Your task to perform on an android device: turn off improve location accuracy Image 0: 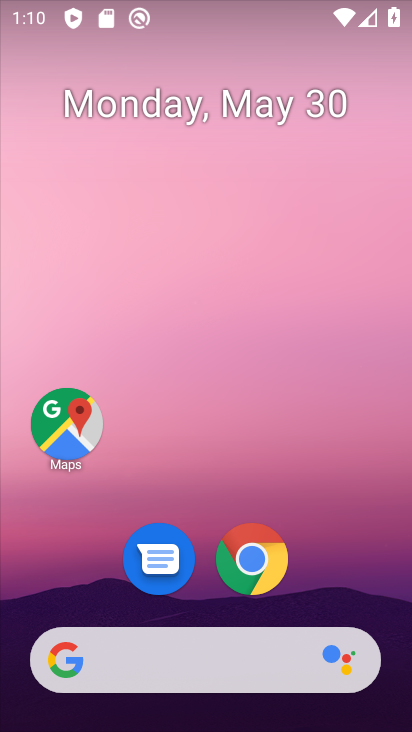
Step 0: drag from (144, 724) to (153, 42)
Your task to perform on an android device: turn off improve location accuracy Image 1: 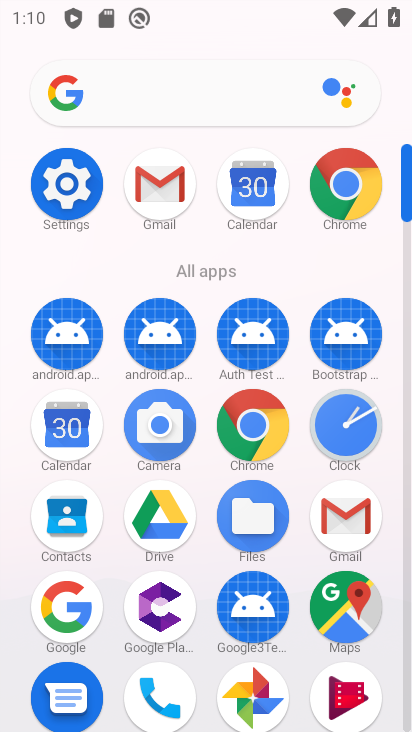
Step 1: click (46, 190)
Your task to perform on an android device: turn off improve location accuracy Image 2: 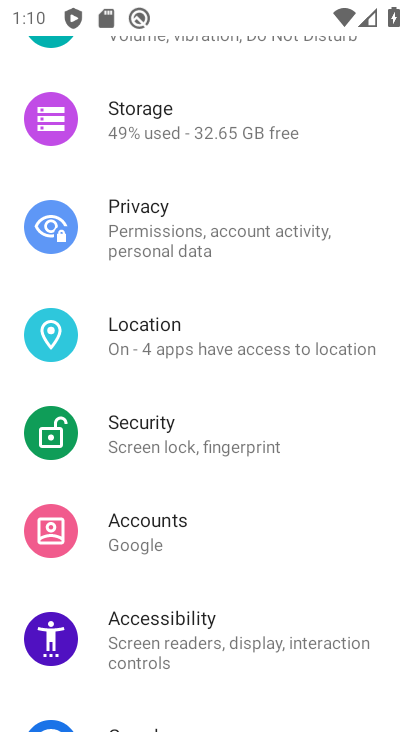
Step 2: click (195, 339)
Your task to perform on an android device: turn off improve location accuracy Image 3: 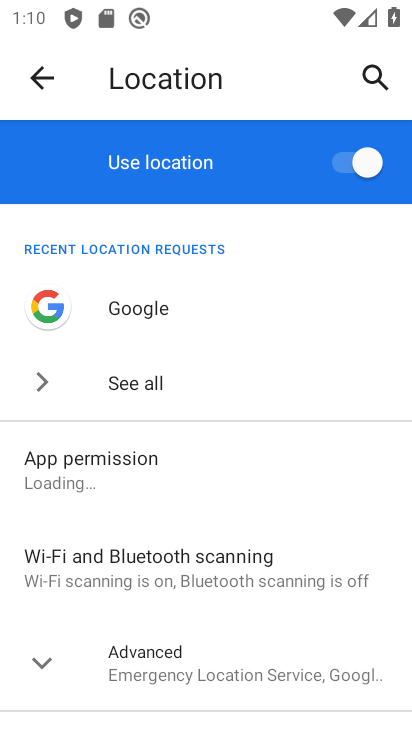
Step 3: click (138, 683)
Your task to perform on an android device: turn off improve location accuracy Image 4: 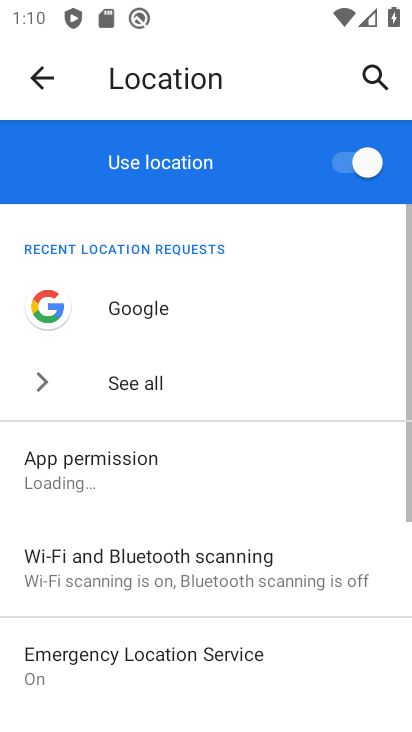
Step 4: drag from (261, 620) to (300, 203)
Your task to perform on an android device: turn off improve location accuracy Image 5: 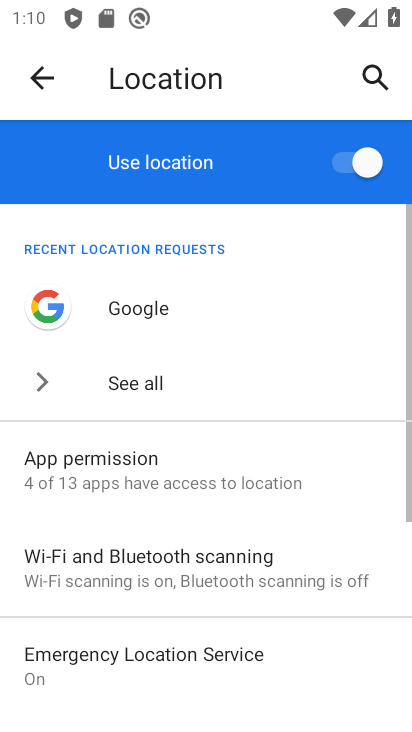
Step 5: drag from (247, 684) to (329, 222)
Your task to perform on an android device: turn off improve location accuracy Image 6: 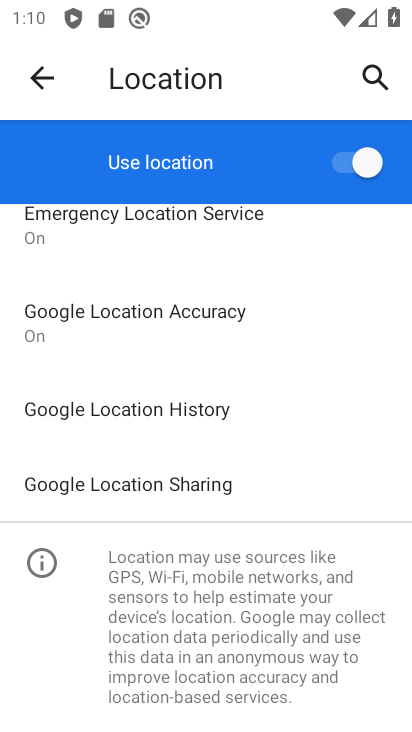
Step 6: click (216, 317)
Your task to perform on an android device: turn off improve location accuracy Image 7: 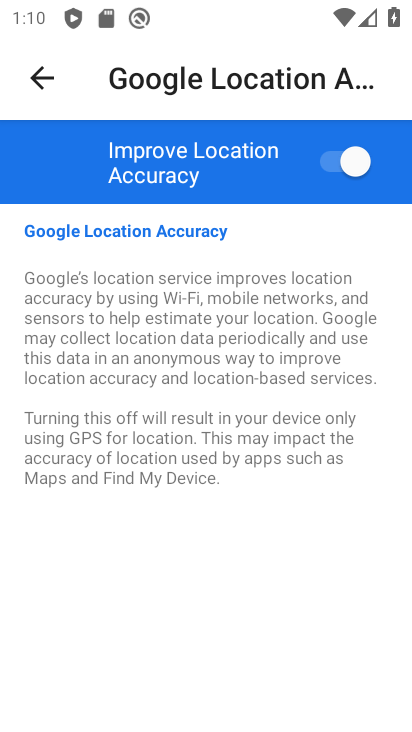
Step 7: click (354, 167)
Your task to perform on an android device: turn off improve location accuracy Image 8: 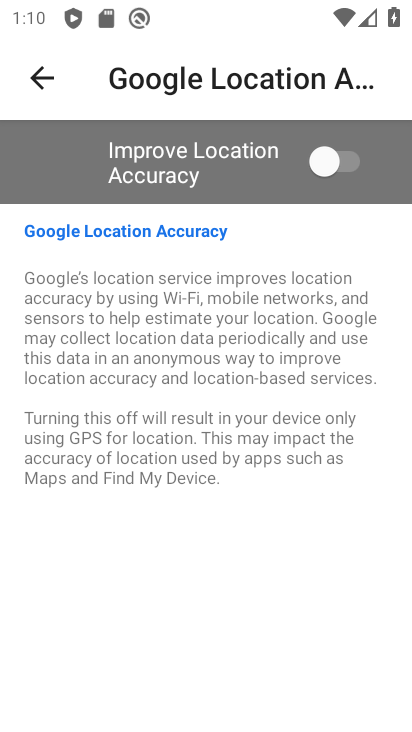
Step 8: task complete